Your task to perform on an android device: Go to Amazon Image 0: 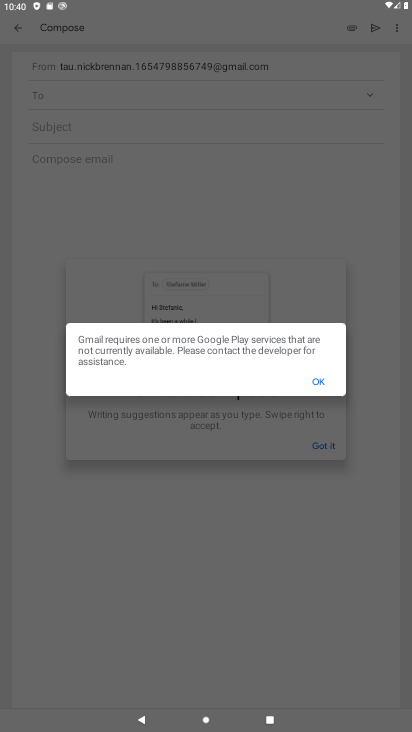
Step 0: press home button
Your task to perform on an android device: Go to Amazon Image 1: 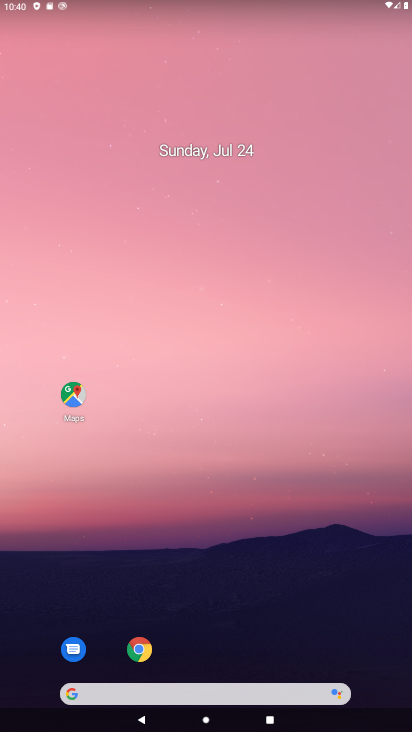
Step 1: click (134, 647)
Your task to perform on an android device: Go to Amazon Image 2: 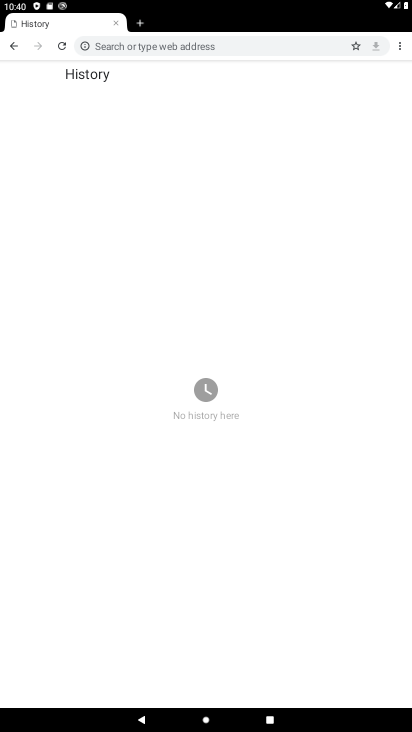
Step 2: click (227, 37)
Your task to perform on an android device: Go to Amazon Image 3: 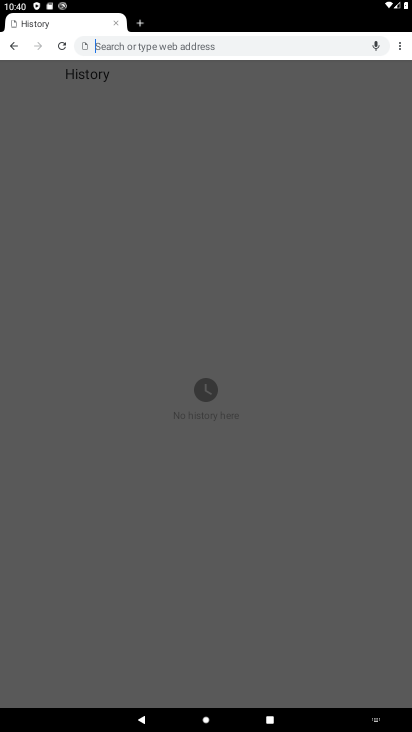
Step 3: type "amazon"
Your task to perform on an android device: Go to Amazon Image 4: 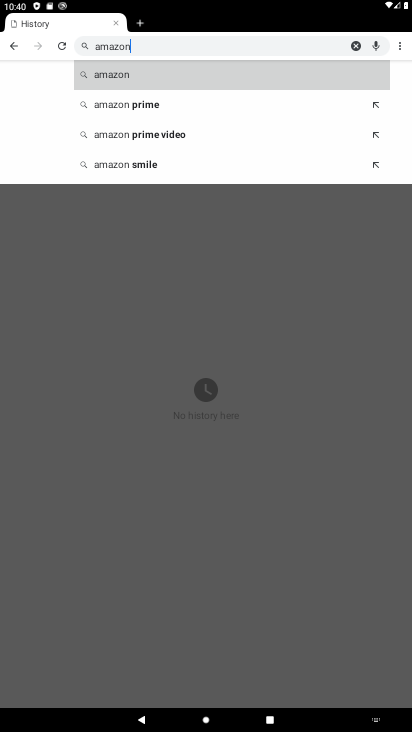
Step 4: click (108, 81)
Your task to perform on an android device: Go to Amazon Image 5: 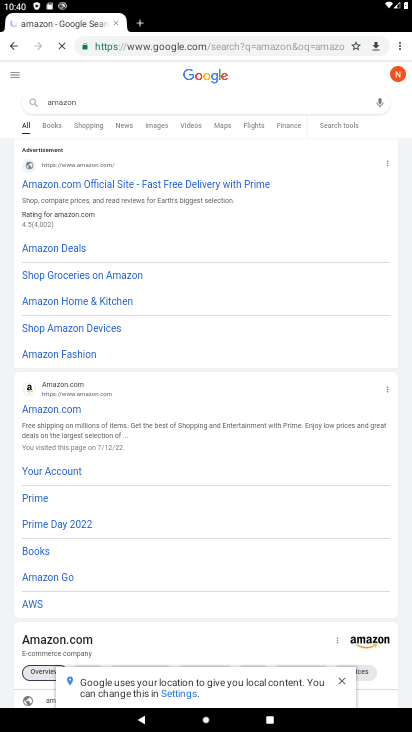
Step 5: click (130, 177)
Your task to perform on an android device: Go to Amazon Image 6: 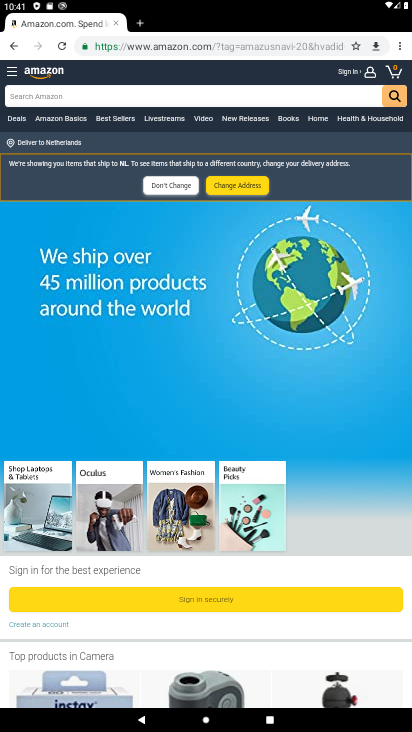
Step 6: task complete